Your task to perform on an android device: move an email to a new category in the gmail app Image 0: 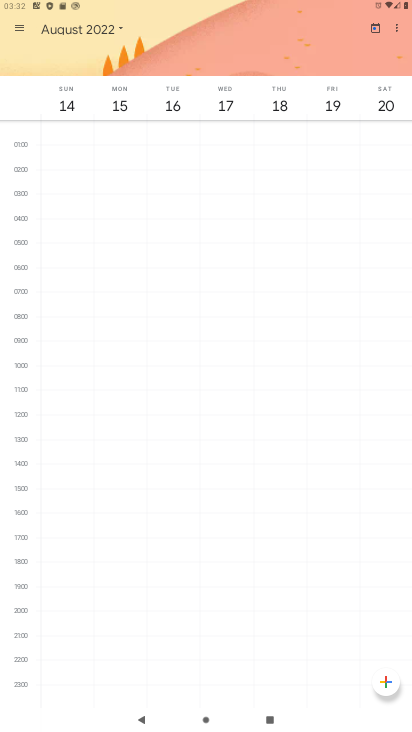
Step 0: press home button
Your task to perform on an android device: move an email to a new category in the gmail app Image 1: 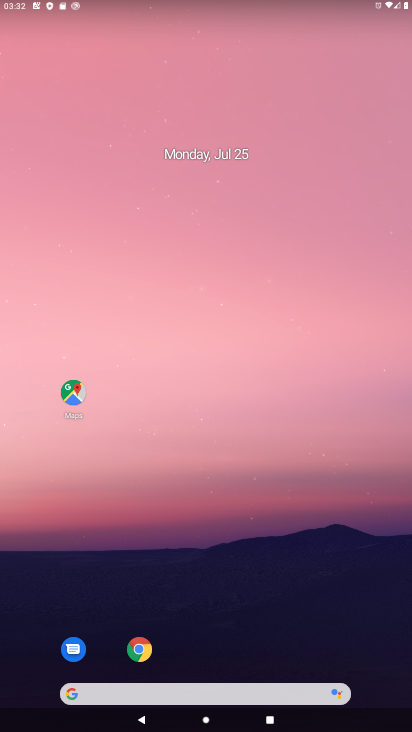
Step 1: drag from (391, 685) to (336, 141)
Your task to perform on an android device: move an email to a new category in the gmail app Image 2: 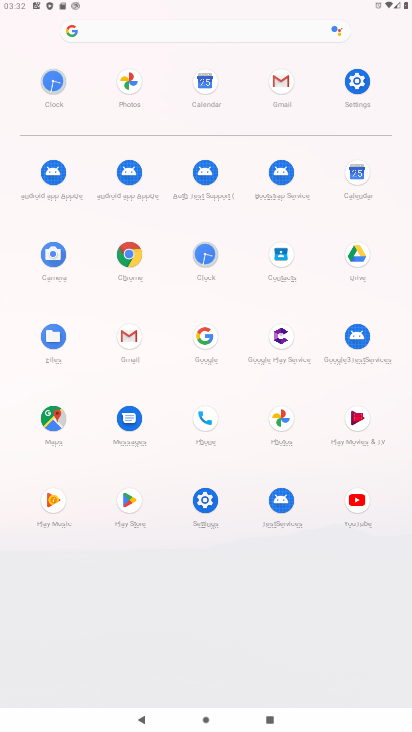
Step 2: click (130, 338)
Your task to perform on an android device: move an email to a new category in the gmail app Image 3: 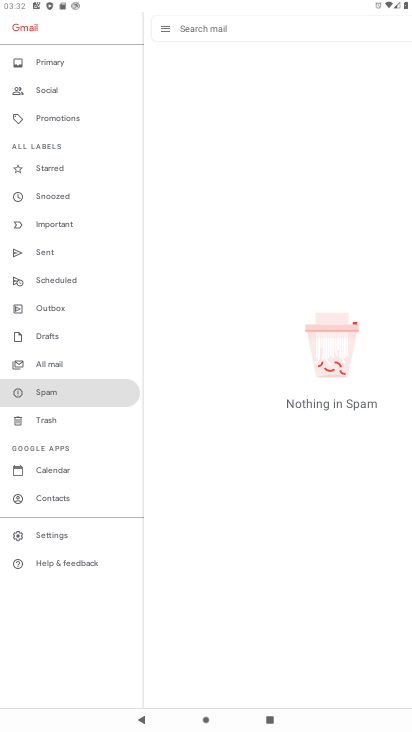
Step 3: click (49, 363)
Your task to perform on an android device: move an email to a new category in the gmail app Image 4: 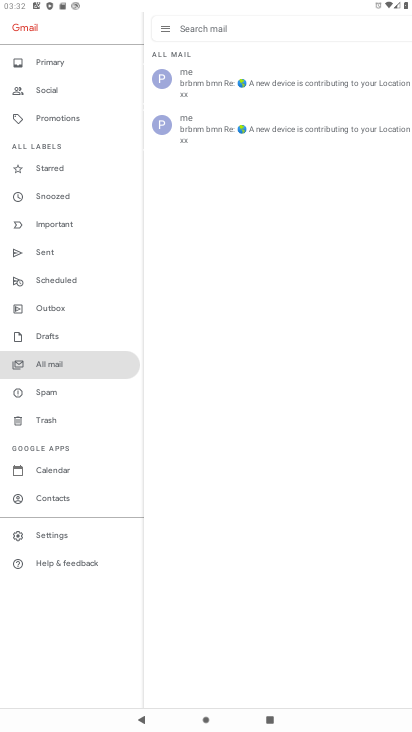
Step 4: click (284, 85)
Your task to perform on an android device: move an email to a new category in the gmail app Image 5: 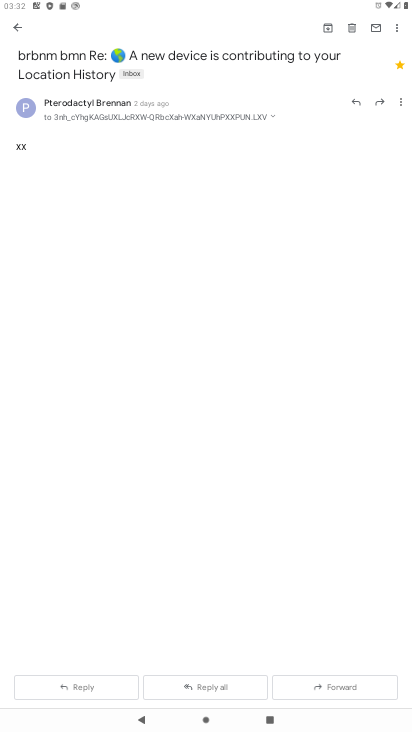
Step 5: click (396, 35)
Your task to perform on an android device: move an email to a new category in the gmail app Image 6: 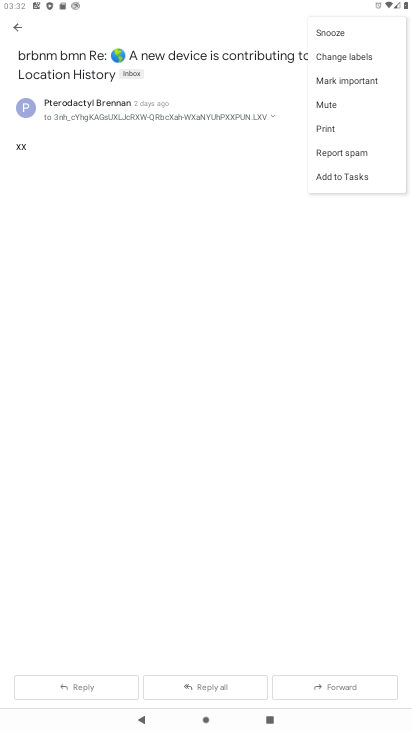
Step 6: click (292, 240)
Your task to perform on an android device: move an email to a new category in the gmail app Image 7: 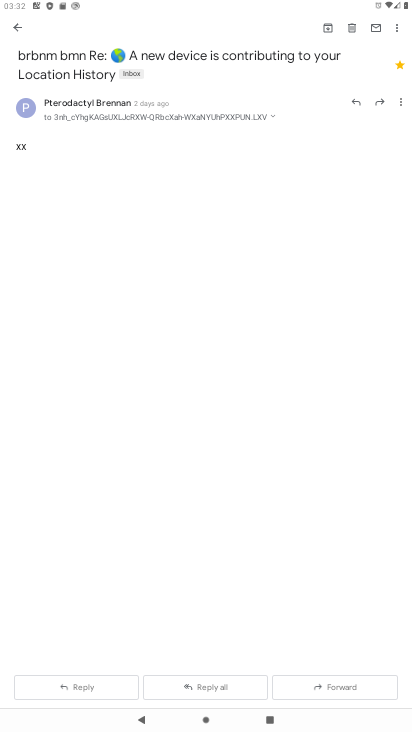
Step 7: click (401, 101)
Your task to perform on an android device: move an email to a new category in the gmail app Image 8: 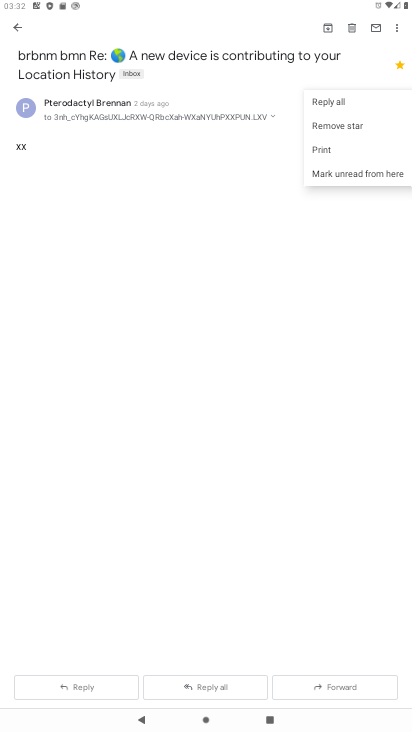
Step 8: click (336, 231)
Your task to perform on an android device: move an email to a new category in the gmail app Image 9: 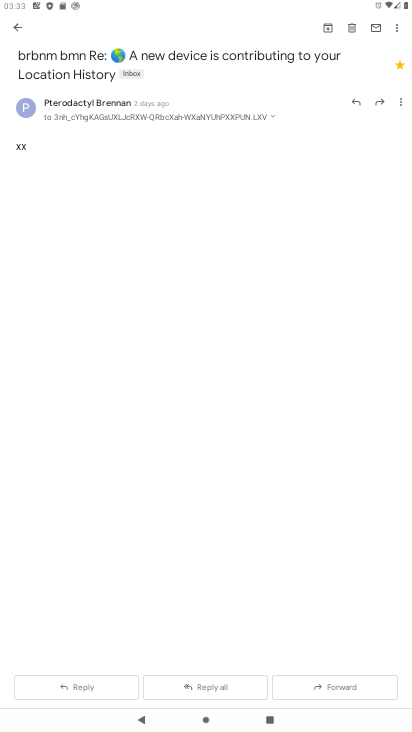
Step 9: task complete